Your task to perform on an android device: open device folders in google photos Image 0: 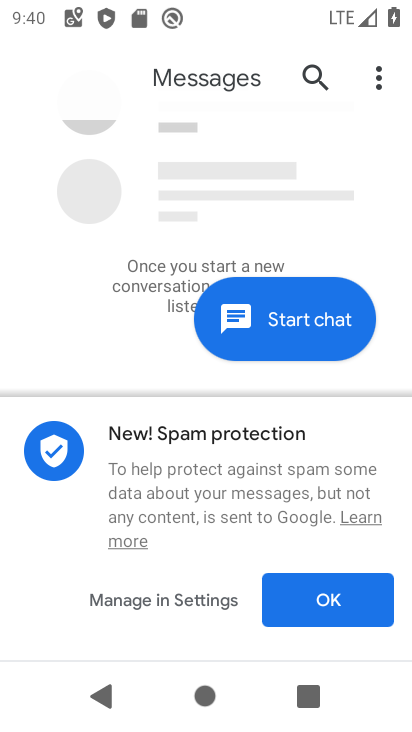
Step 0: press back button
Your task to perform on an android device: open device folders in google photos Image 1: 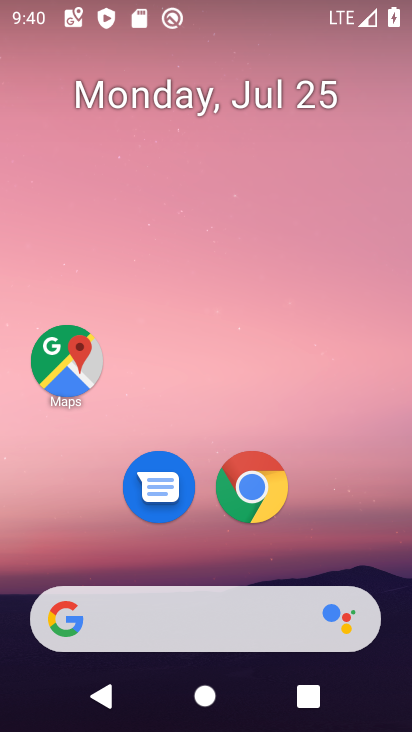
Step 1: drag from (195, 566) to (216, 15)
Your task to perform on an android device: open device folders in google photos Image 2: 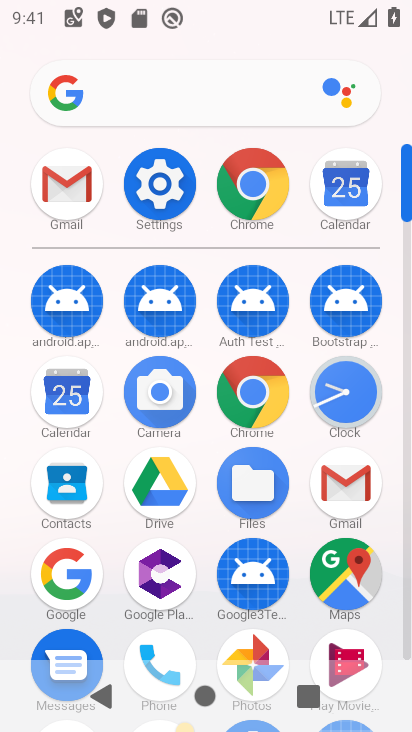
Step 2: click (251, 651)
Your task to perform on an android device: open device folders in google photos Image 3: 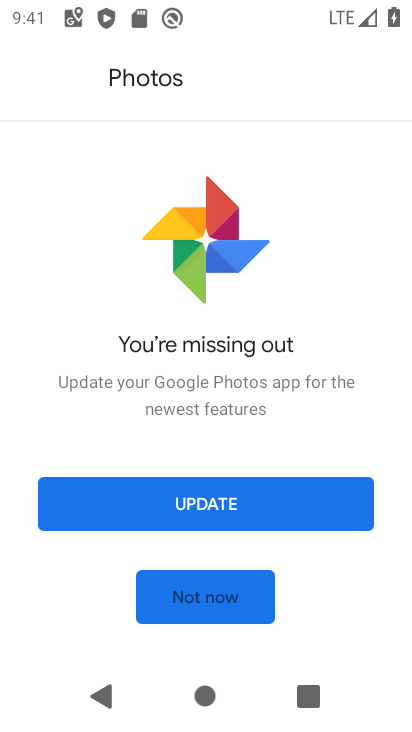
Step 3: click (244, 599)
Your task to perform on an android device: open device folders in google photos Image 4: 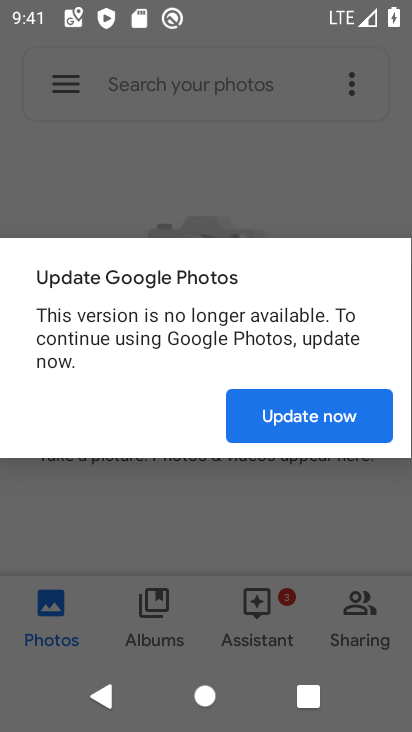
Step 4: click (281, 418)
Your task to perform on an android device: open device folders in google photos Image 5: 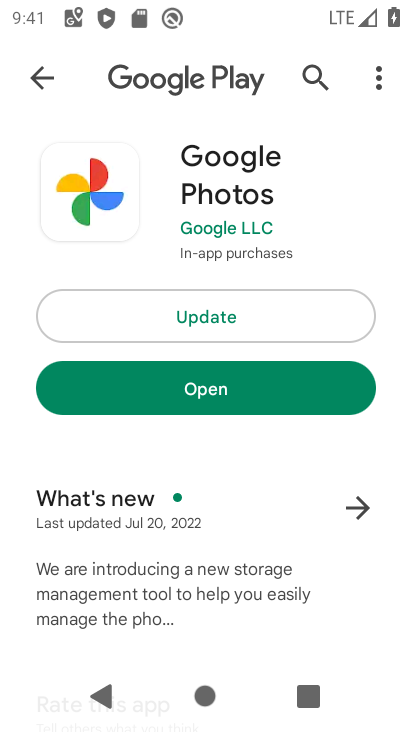
Step 5: click (173, 396)
Your task to perform on an android device: open device folders in google photos Image 6: 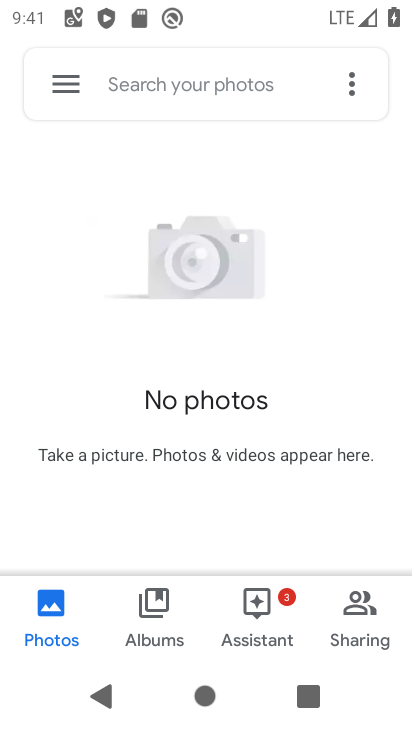
Step 6: click (57, 74)
Your task to perform on an android device: open device folders in google photos Image 7: 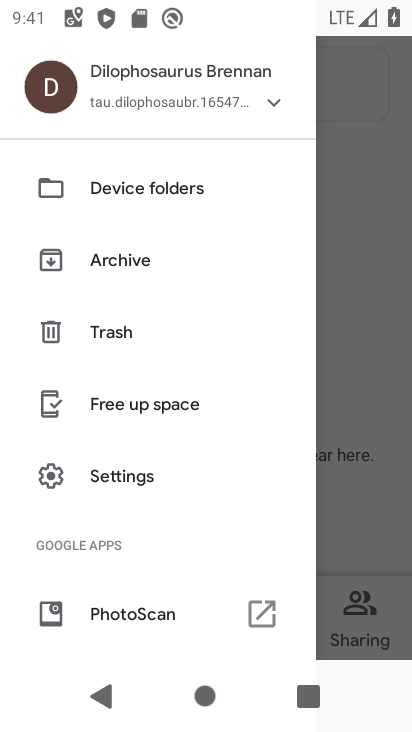
Step 7: click (161, 181)
Your task to perform on an android device: open device folders in google photos Image 8: 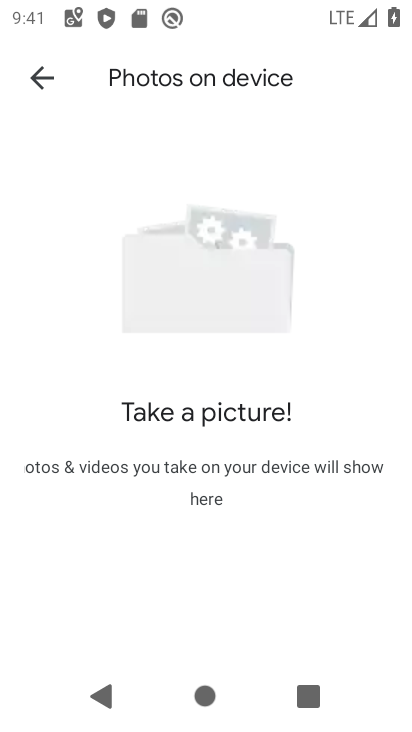
Step 8: task complete